Your task to perform on an android device: Empty the shopping cart on newegg.com. Search for apple airpods pro on newegg.com, select the first entry, and add it to the cart. Image 0: 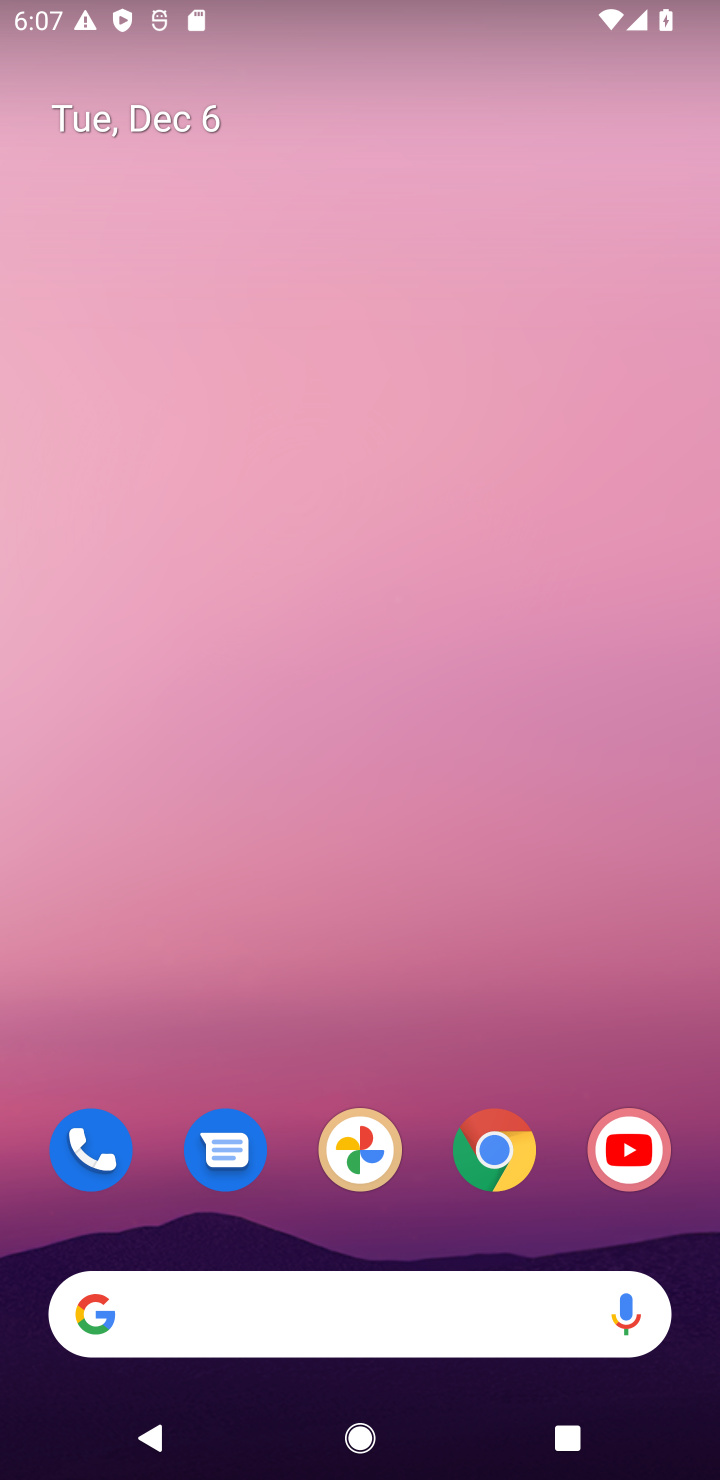
Step 0: click (496, 1138)
Your task to perform on an android device: Empty the shopping cart on newegg.com. Search for apple airpods pro on newegg.com, select the first entry, and add it to the cart. Image 1: 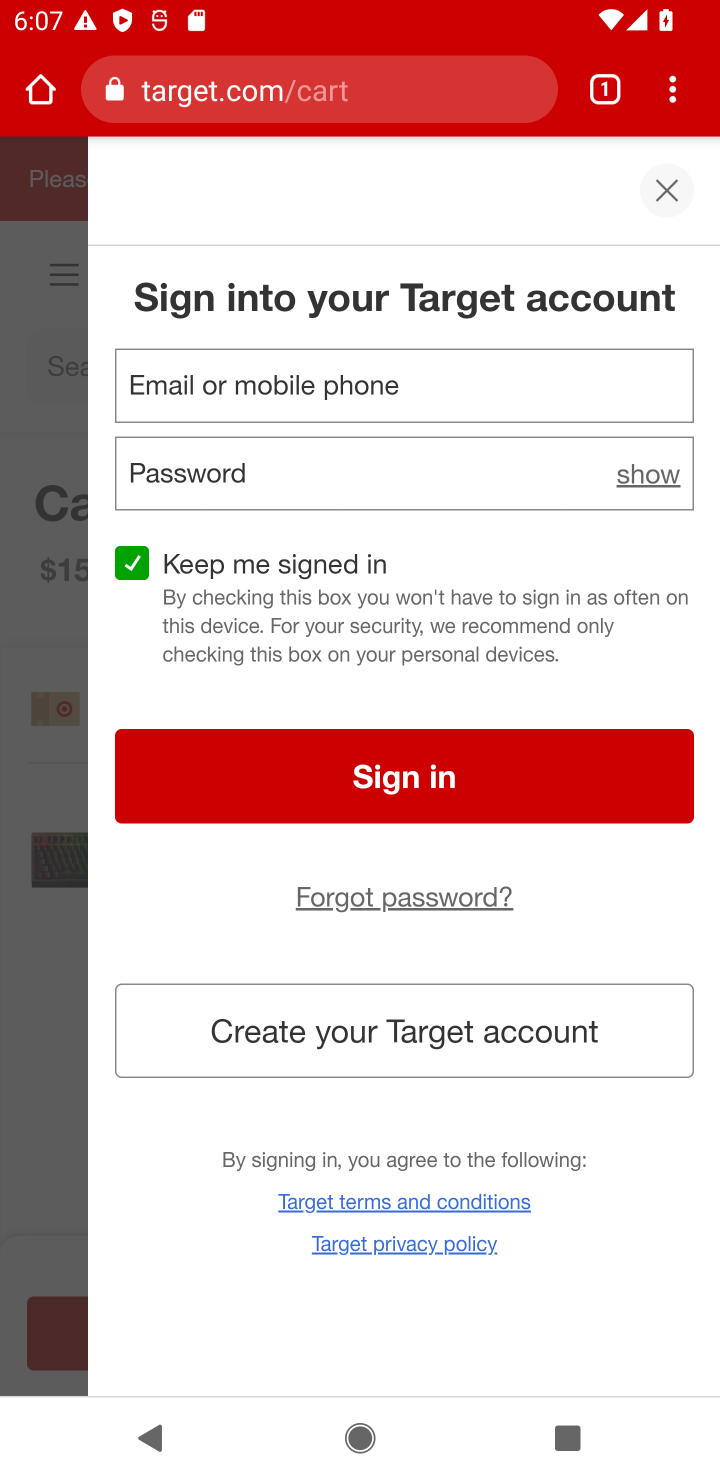
Step 1: click (245, 98)
Your task to perform on an android device: Empty the shopping cart on newegg.com. Search for apple airpods pro on newegg.com, select the first entry, and add it to the cart. Image 2: 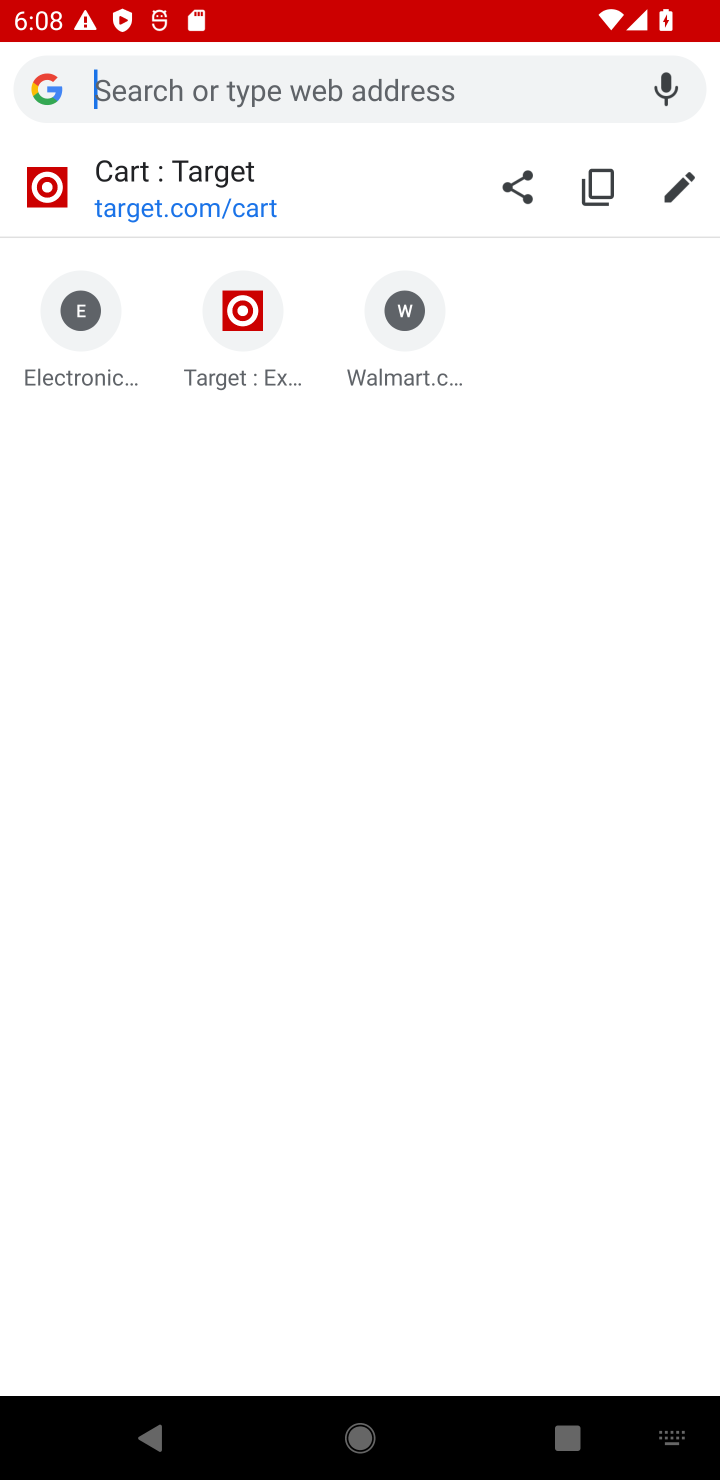
Step 2: type "newegg.com"
Your task to perform on an android device: Empty the shopping cart on newegg.com. Search for apple airpods pro on newegg.com, select the first entry, and add it to the cart. Image 3: 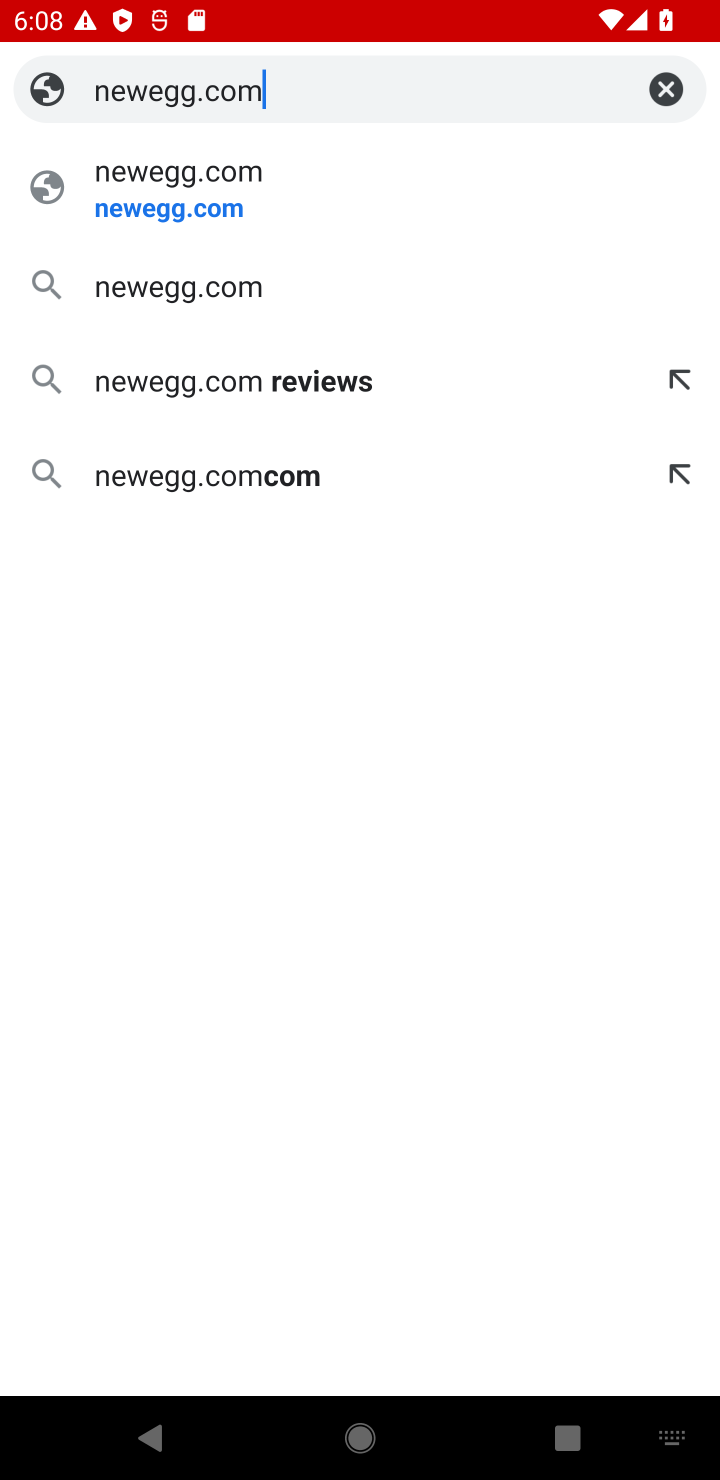
Step 3: click (160, 190)
Your task to perform on an android device: Empty the shopping cart on newegg.com. Search for apple airpods pro on newegg.com, select the first entry, and add it to the cart. Image 4: 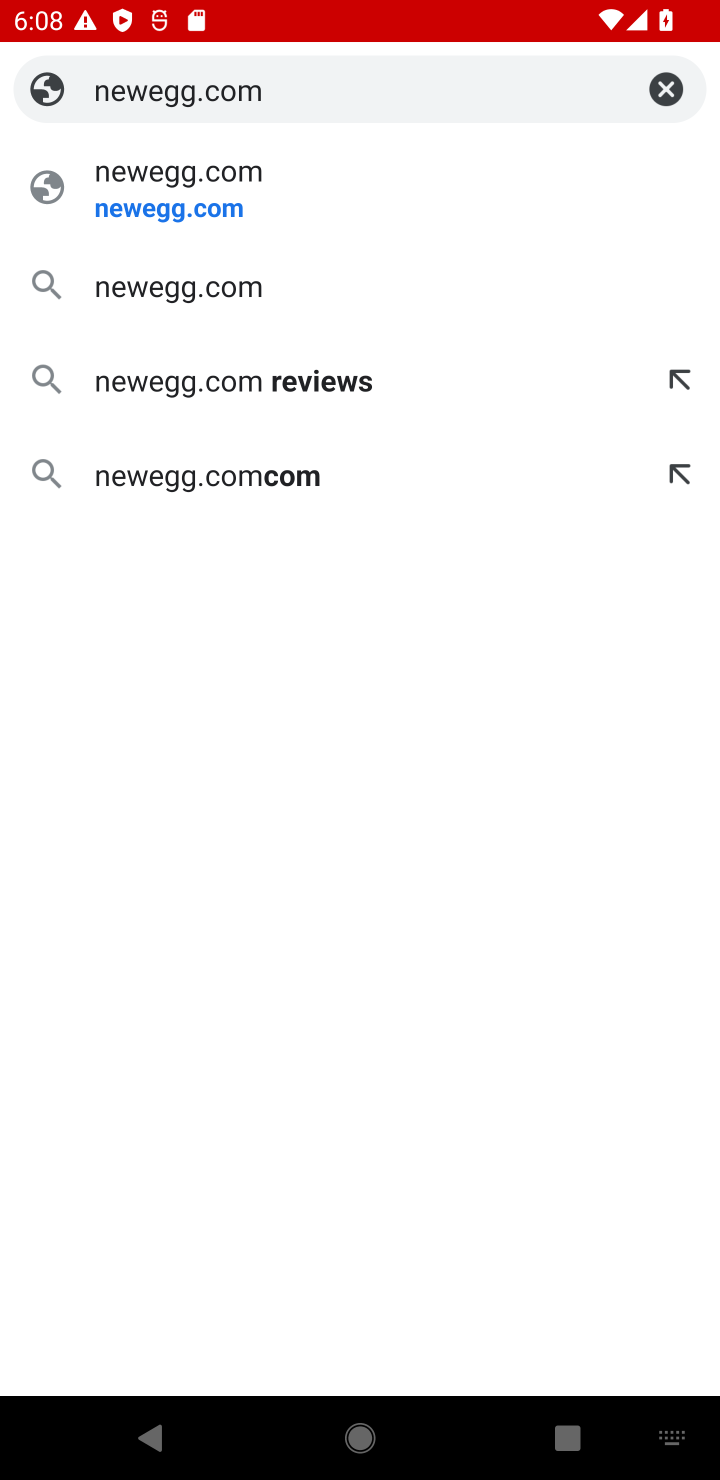
Step 4: click (122, 206)
Your task to perform on an android device: Empty the shopping cart on newegg.com. Search for apple airpods pro on newegg.com, select the first entry, and add it to the cart. Image 5: 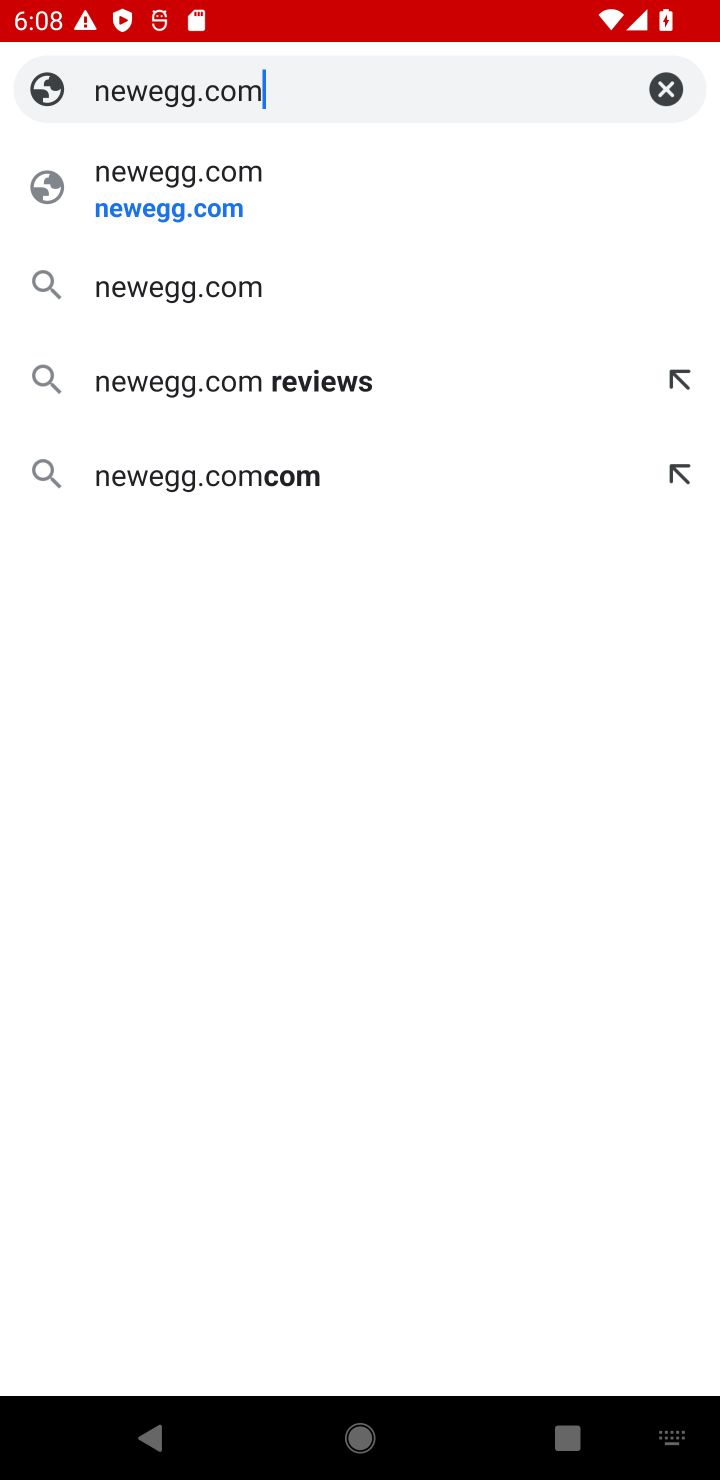
Step 5: click (129, 212)
Your task to perform on an android device: Empty the shopping cart on newegg.com. Search for apple airpods pro on newegg.com, select the first entry, and add it to the cart. Image 6: 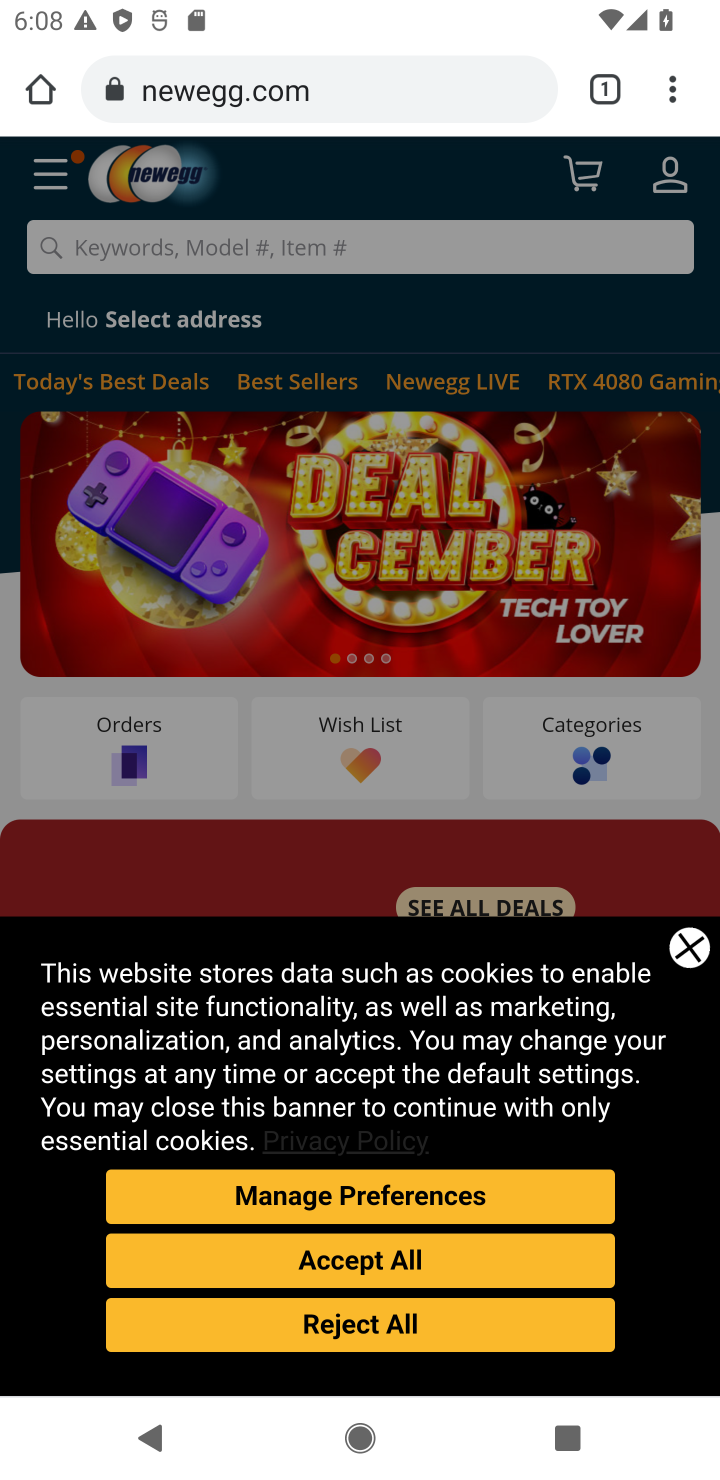
Step 6: click (586, 189)
Your task to perform on an android device: Empty the shopping cart on newegg.com. Search for apple airpods pro on newegg.com, select the first entry, and add it to the cart. Image 7: 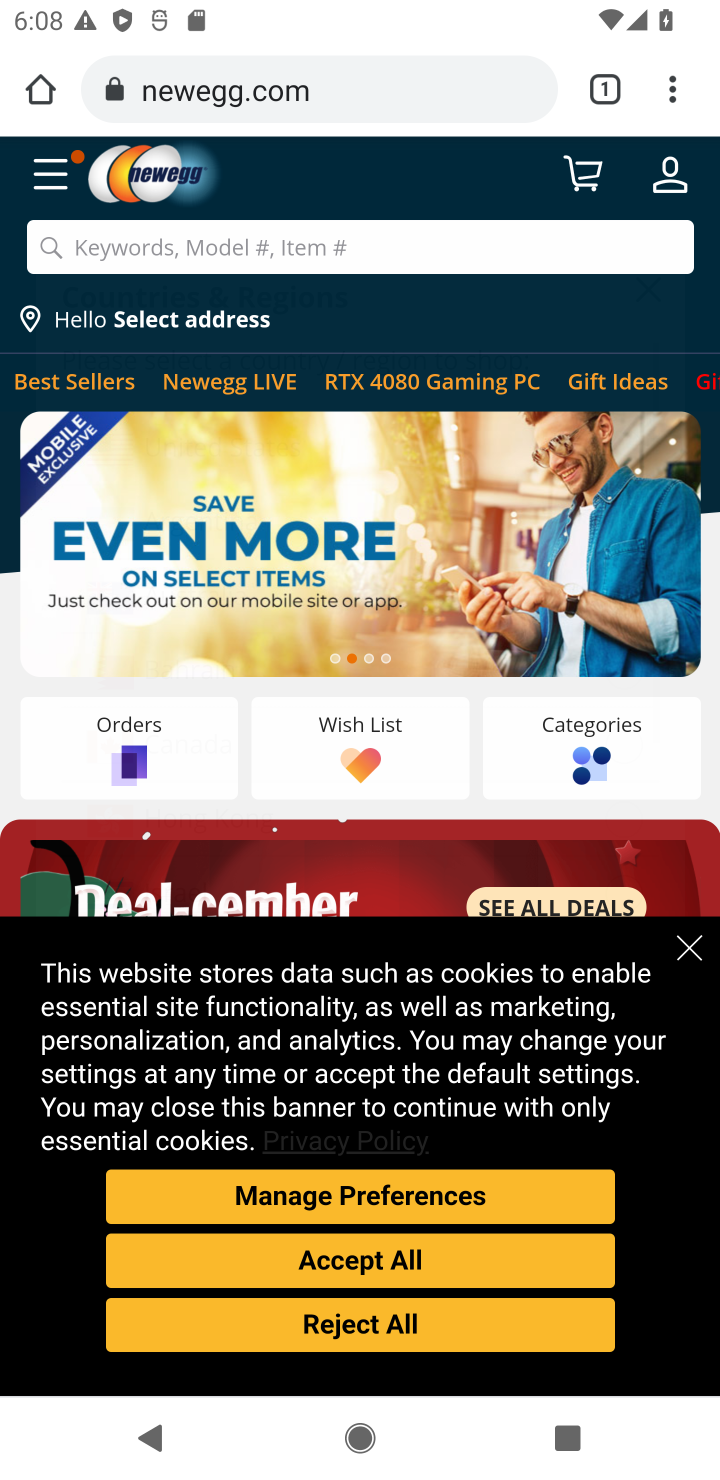
Step 7: click (694, 954)
Your task to perform on an android device: Empty the shopping cart on newegg.com. Search for apple airpods pro on newegg.com, select the first entry, and add it to the cart. Image 8: 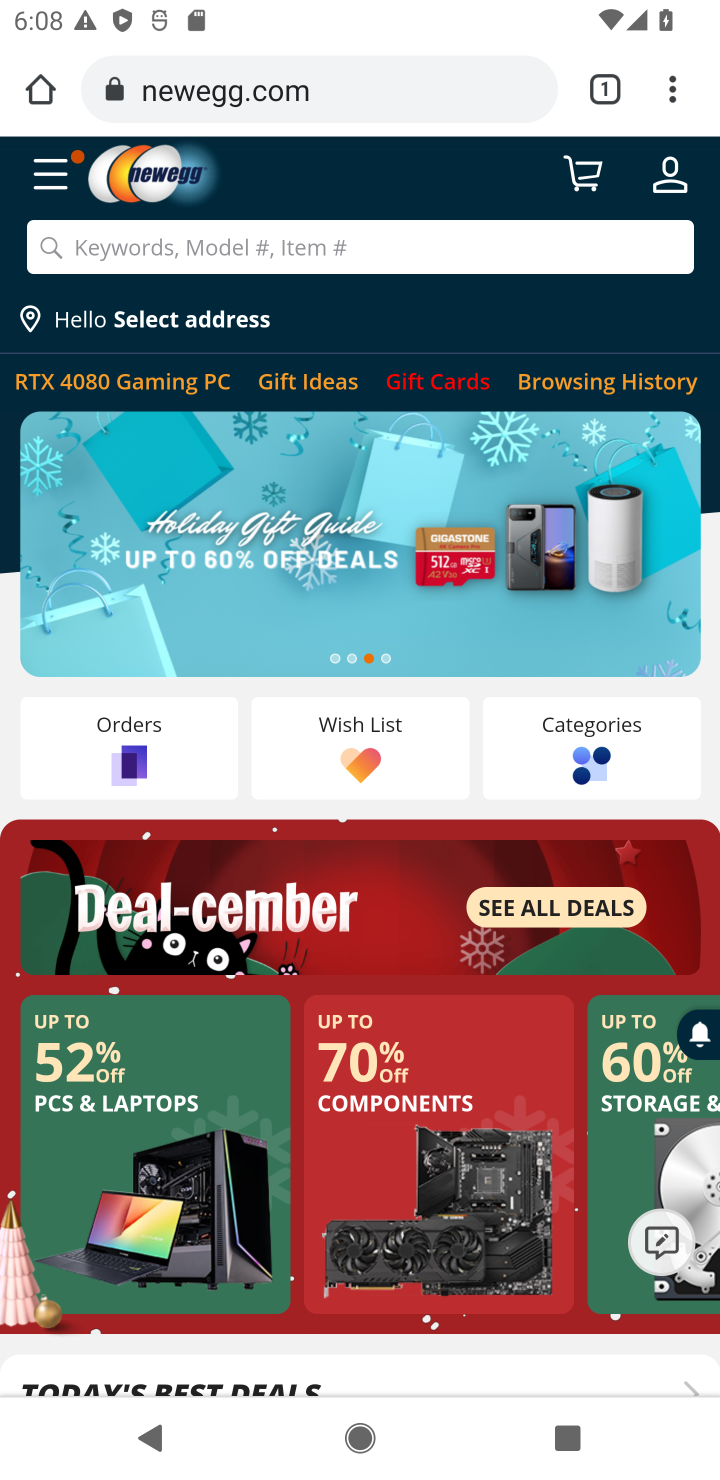
Step 8: click (586, 184)
Your task to perform on an android device: Empty the shopping cart on newegg.com. Search for apple airpods pro on newegg.com, select the first entry, and add it to the cart. Image 9: 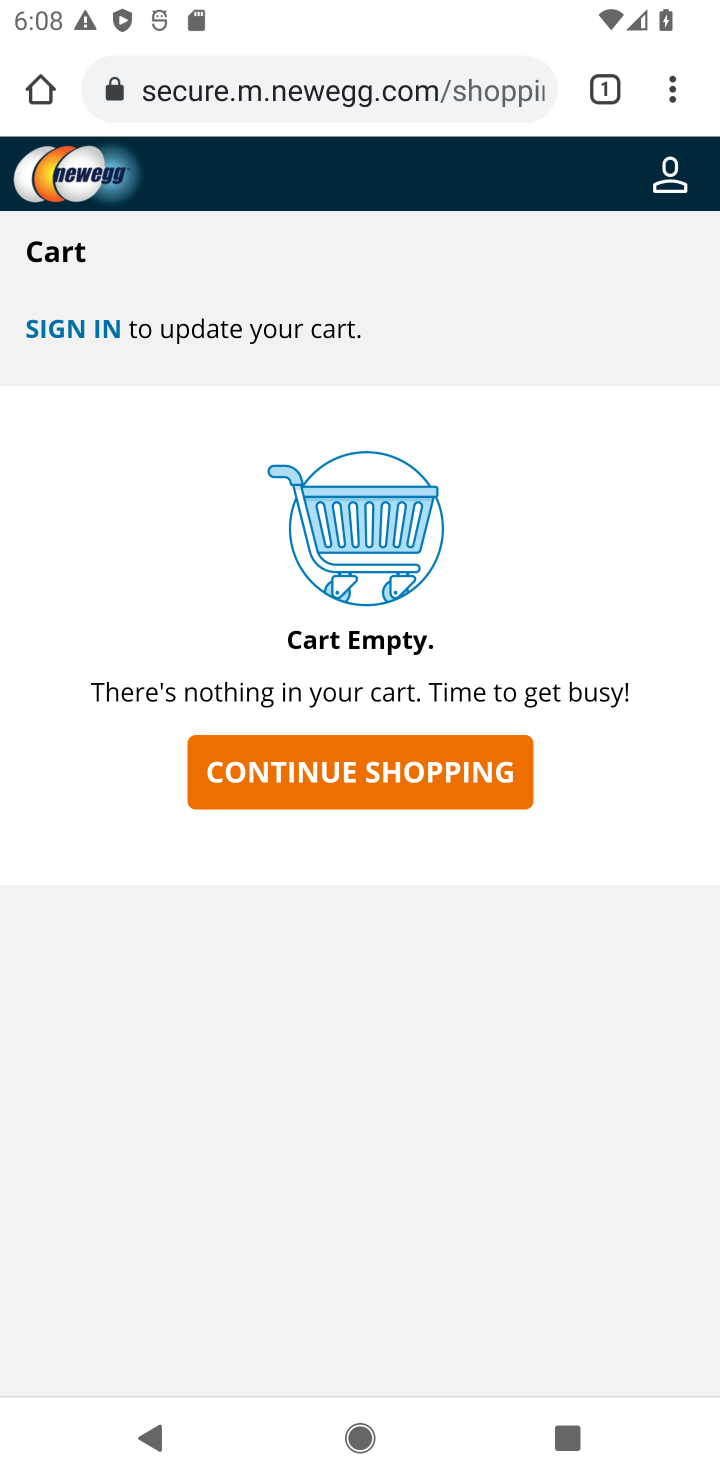
Step 9: click (343, 792)
Your task to perform on an android device: Empty the shopping cart on newegg.com. Search for apple airpods pro on newegg.com, select the first entry, and add it to the cart. Image 10: 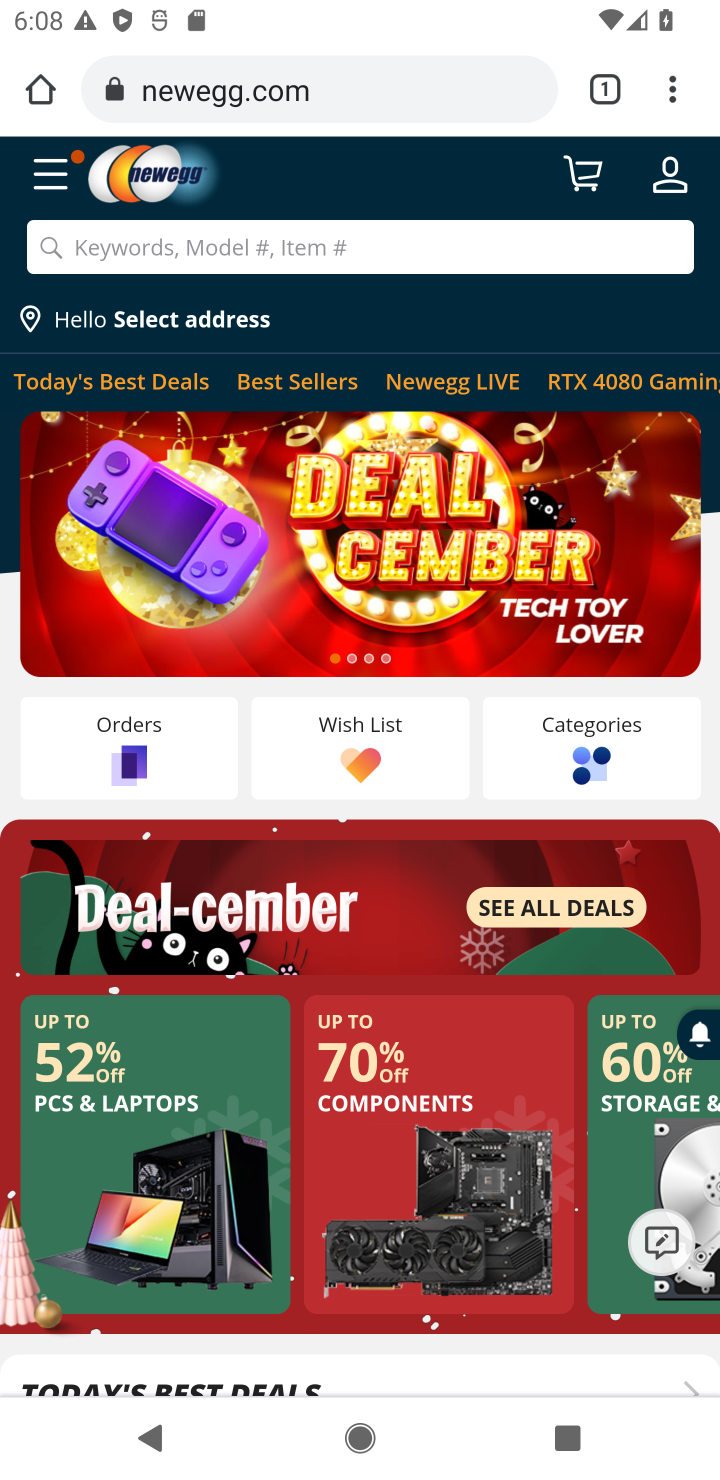
Step 10: click (217, 238)
Your task to perform on an android device: Empty the shopping cart on newegg.com. Search for apple airpods pro on newegg.com, select the first entry, and add it to the cart. Image 11: 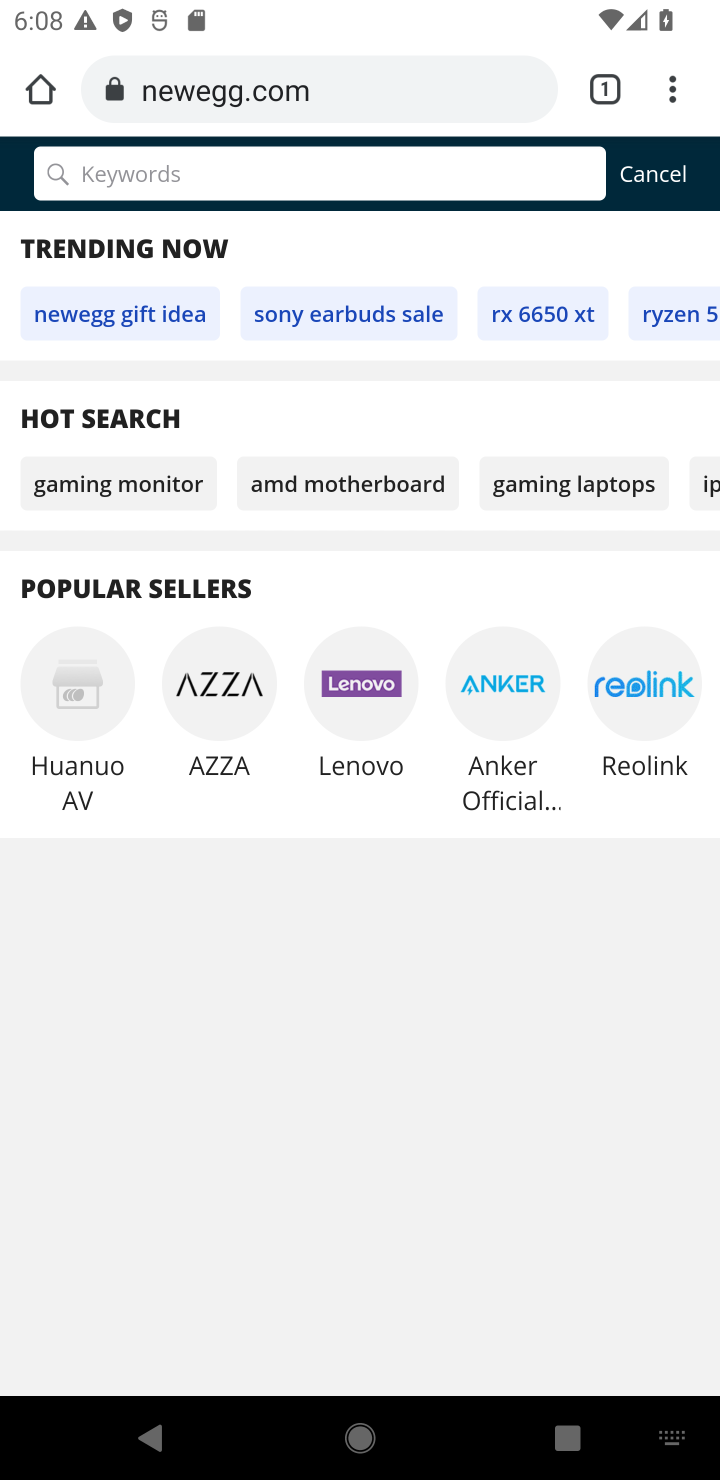
Step 11: type "apple airpods pro"
Your task to perform on an android device: Empty the shopping cart on newegg.com. Search for apple airpods pro on newegg.com, select the first entry, and add it to the cart. Image 12: 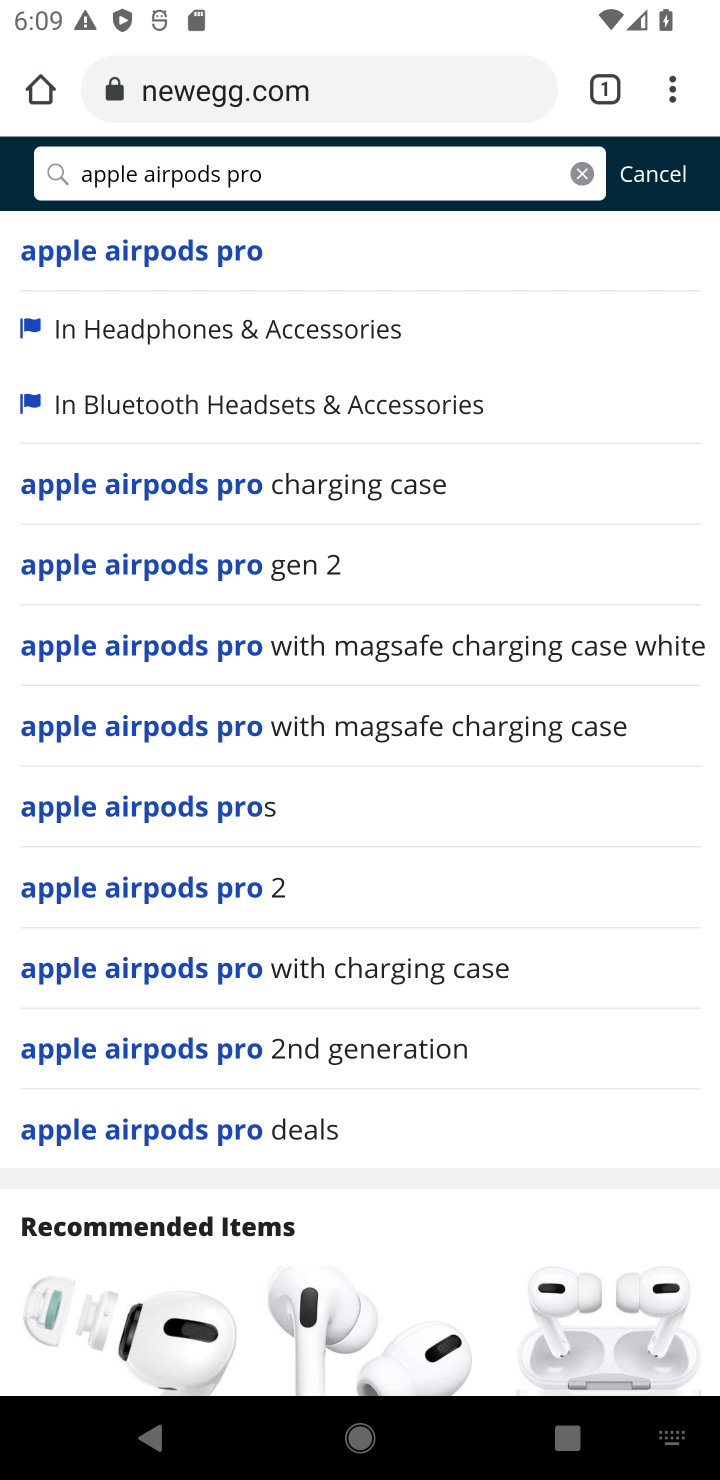
Step 12: click (222, 253)
Your task to perform on an android device: Empty the shopping cart on newegg.com. Search for apple airpods pro on newegg.com, select the first entry, and add it to the cart. Image 13: 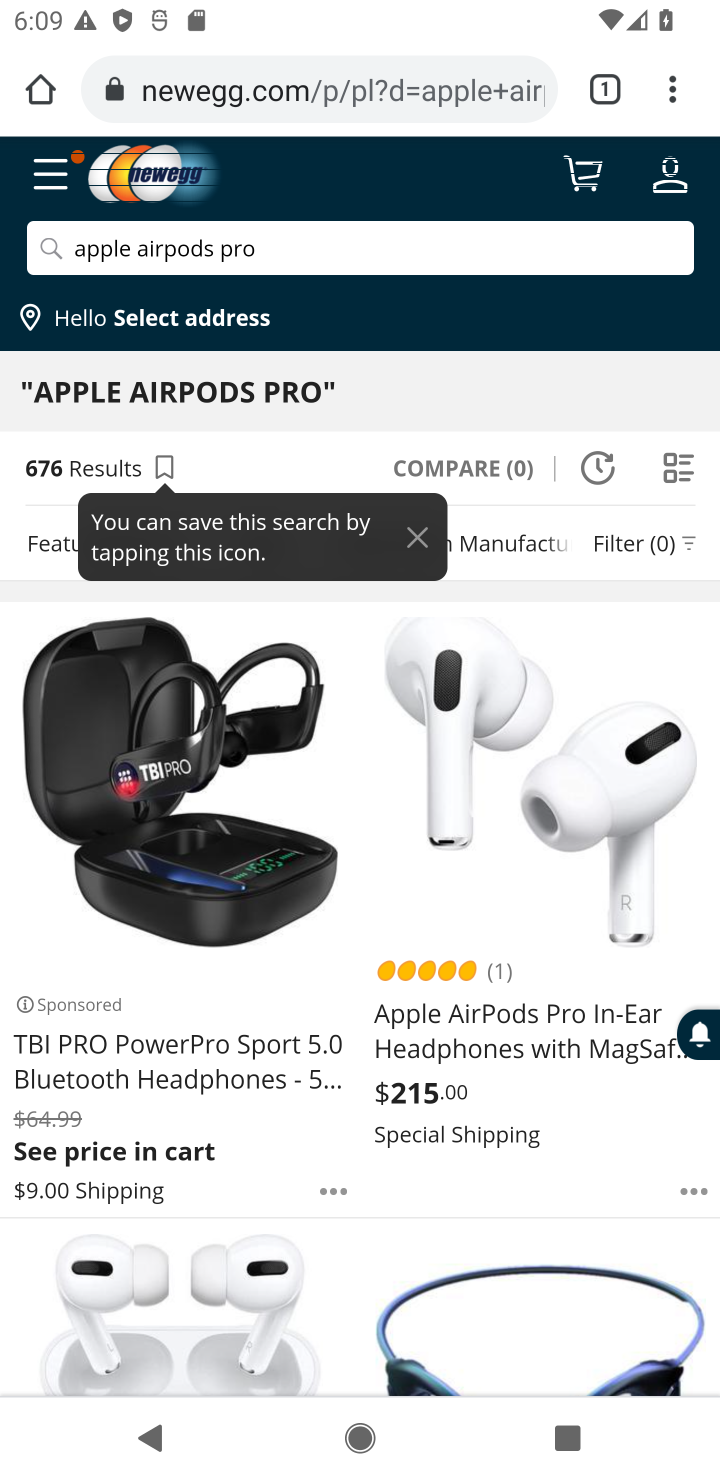
Step 13: task complete